Your task to perform on an android device: Is it going to rain tomorrow? Image 0: 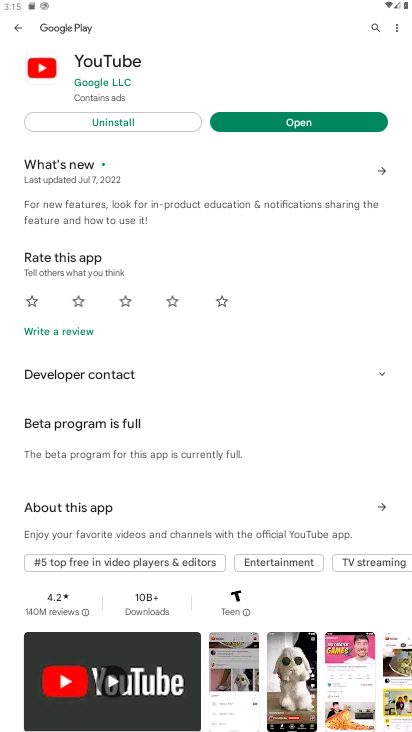
Step 0: press home button
Your task to perform on an android device: Is it going to rain tomorrow? Image 1: 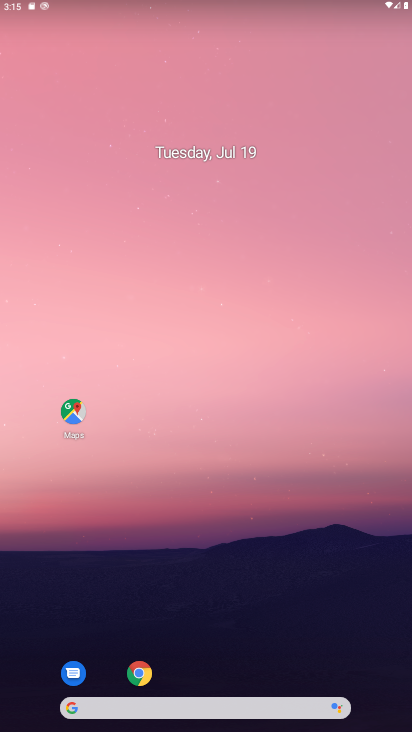
Step 1: drag from (215, 692) to (219, 43)
Your task to perform on an android device: Is it going to rain tomorrow? Image 2: 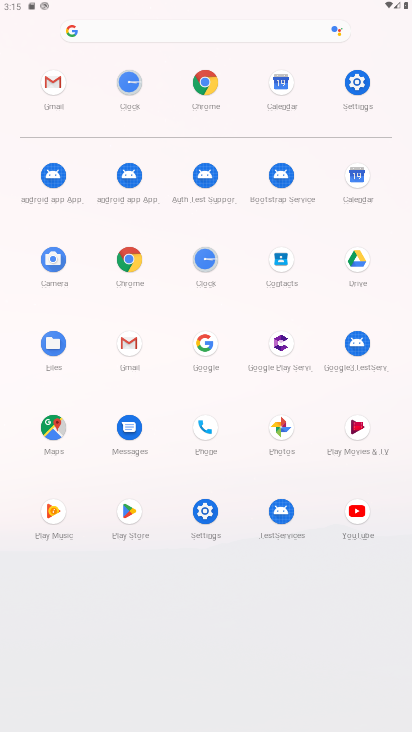
Step 2: click (203, 28)
Your task to perform on an android device: Is it going to rain tomorrow? Image 3: 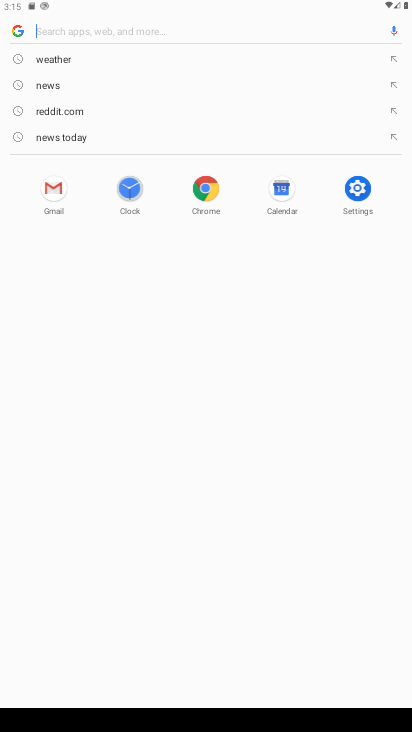
Step 3: type "weather"
Your task to perform on an android device: Is it going to rain tomorrow? Image 4: 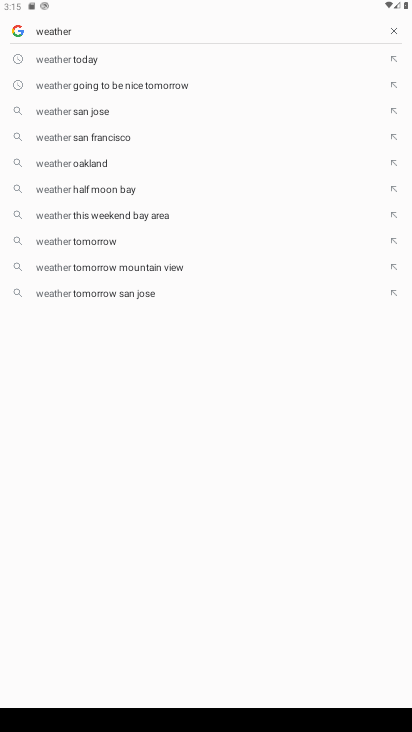
Step 4: click (68, 57)
Your task to perform on an android device: Is it going to rain tomorrow? Image 5: 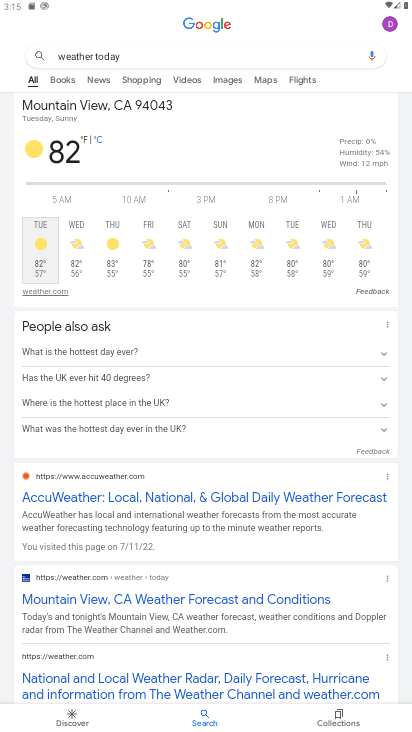
Step 5: click (81, 257)
Your task to perform on an android device: Is it going to rain tomorrow? Image 6: 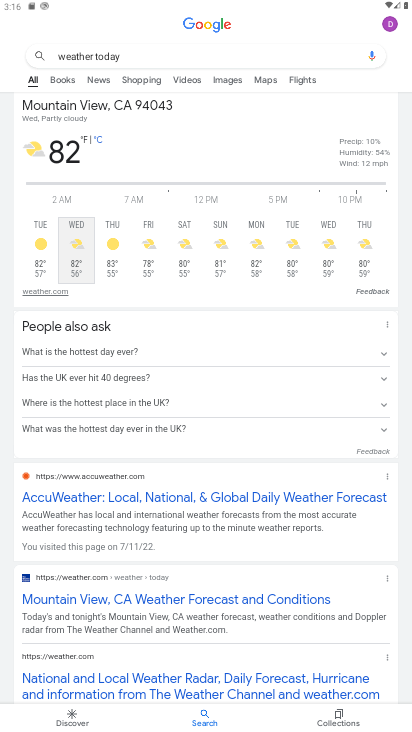
Step 6: task complete